Your task to perform on an android device: check data usage Image 0: 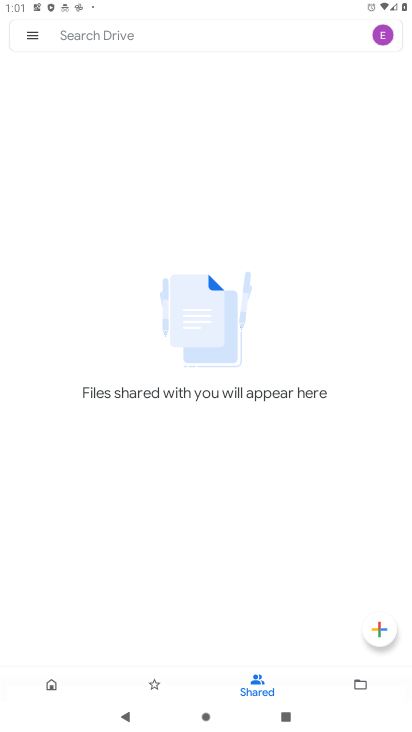
Step 0: task complete